Your task to perform on an android device: move a message to another label in the gmail app Image 0: 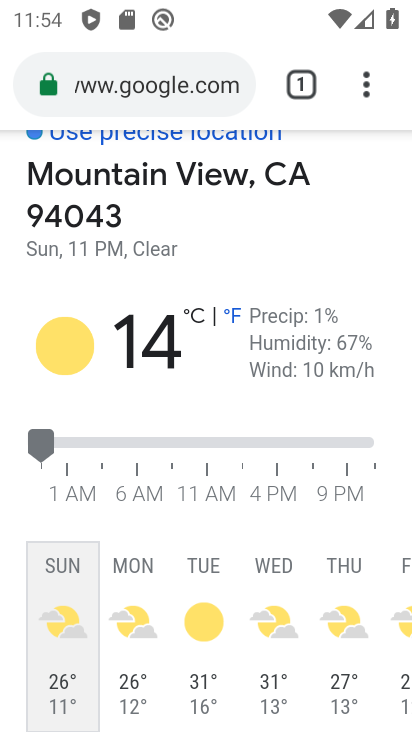
Step 0: press home button
Your task to perform on an android device: move a message to another label in the gmail app Image 1: 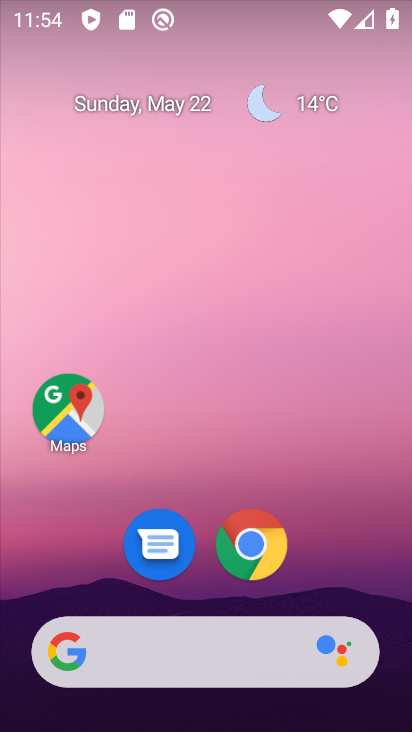
Step 1: drag from (340, 505) to (332, 70)
Your task to perform on an android device: move a message to another label in the gmail app Image 2: 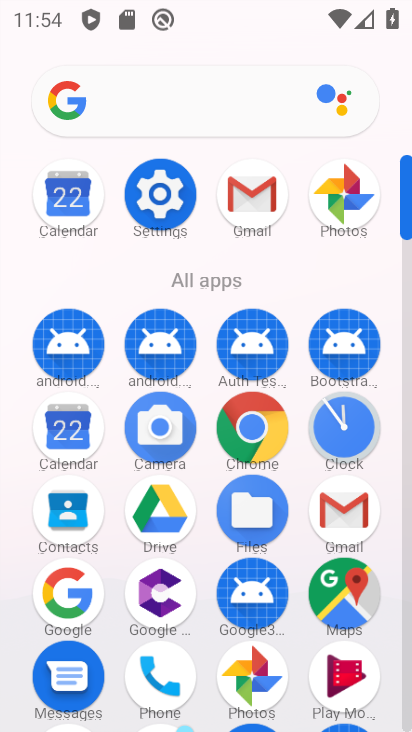
Step 2: click (254, 193)
Your task to perform on an android device: move a message to another label in the gmail app Image 3: 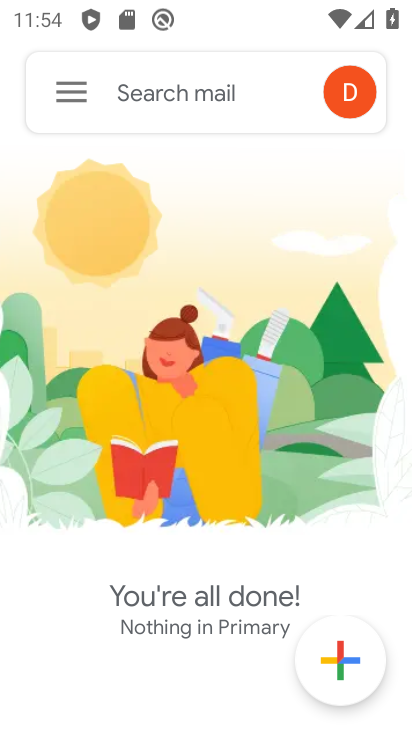
Step 3: click (64, 84)
Your task to perform on an android device: move a message to another label in the gmail app Image 4: 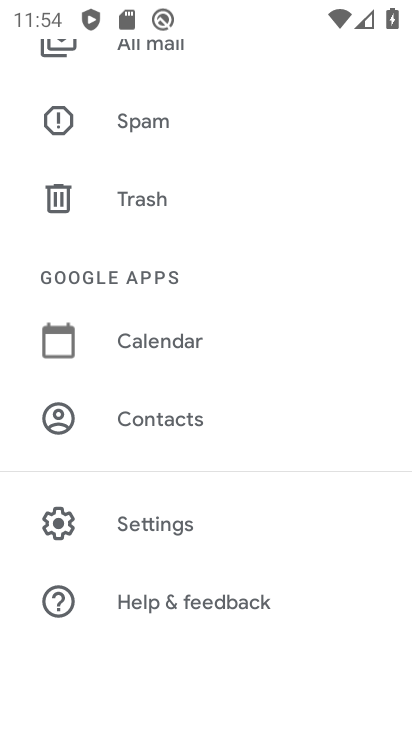
Step 4: drag from (145, 589) to (202, 484)
Your task to perform on an android device: move a message to another label in the gmail app Image 5: 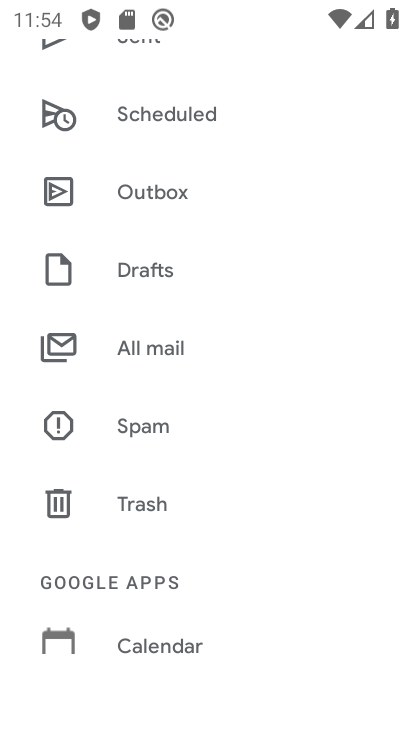
Step 5: click (146, 369)
Your task to perform on an android device: move a message to another label in the gmail app Image 6: 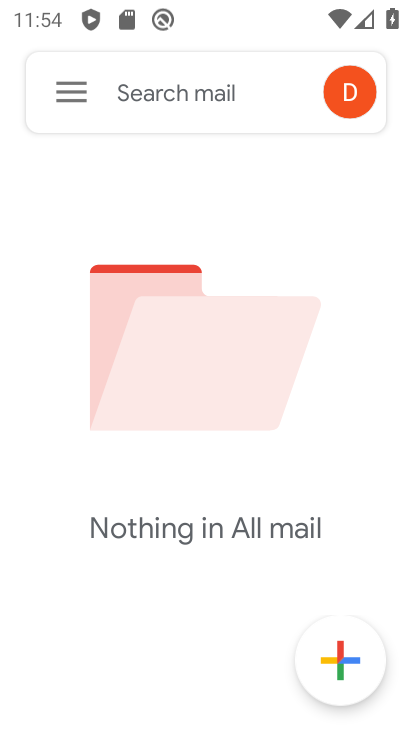
Step 6: task complete